Your task to perform on an android device: turn off notifications settings in the gmail app Image 0: 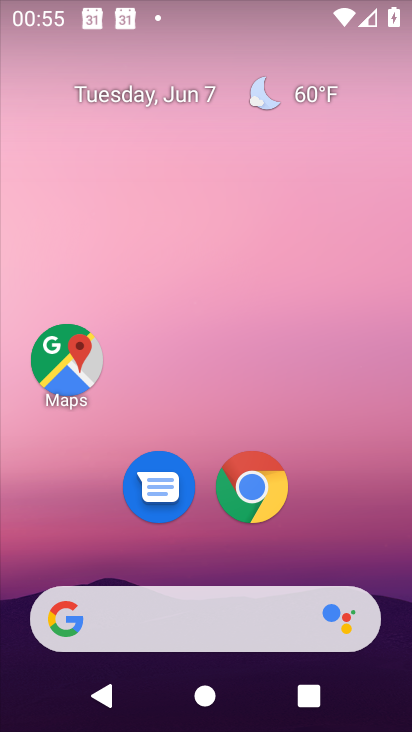
Step 0: drag from (392, 563) to (282, 124)
Your task to perform on an android device: turn off notifications settings in the gmail app Image 1: 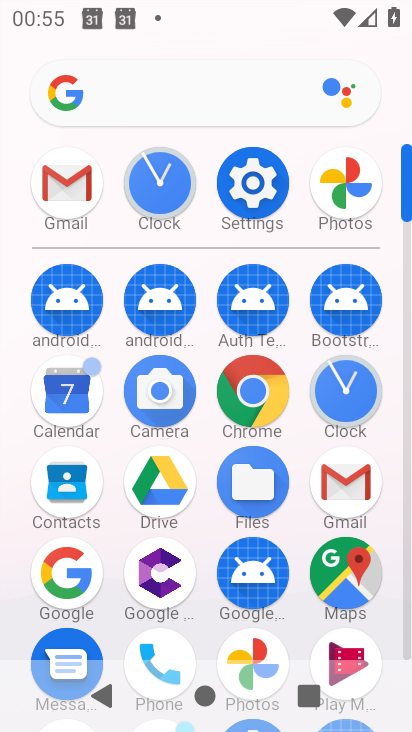
Step 1: click (59, 171)
Your task to perform on an android device: turn off notifications settings in the gmail app Image 2: 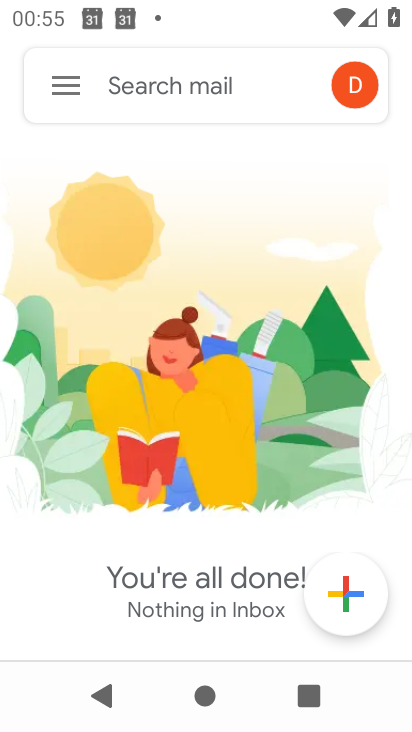
Step 2: click (66, 83)
Your task to perform on an android device: turn off notifications settings in the gmail app Image 3: 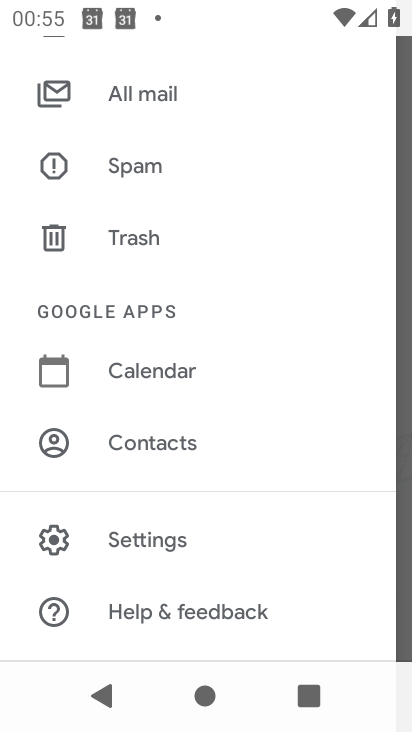
Step 3: click (198, 551)
Your task to perform on an android device: turn off notifications settings in the gmail app Image 4: 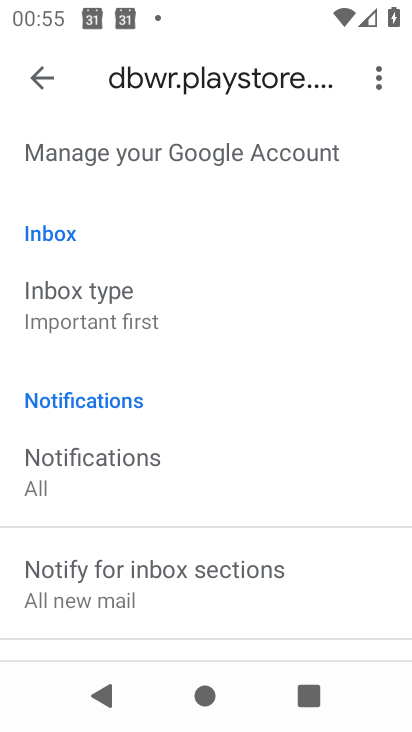
Step 4: drag from (226, 610) to (170, 161)
Your task to perform on an android device: turn off notifications settings in the gmail app Image 5: 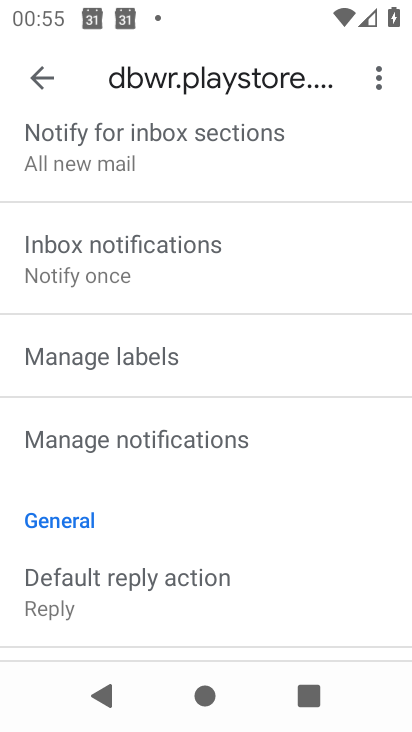
Step 5: drag from (218, 509) to (211, 442)
Your task to perform on an android device: turn off notifications settings in the gmail app Image 6: 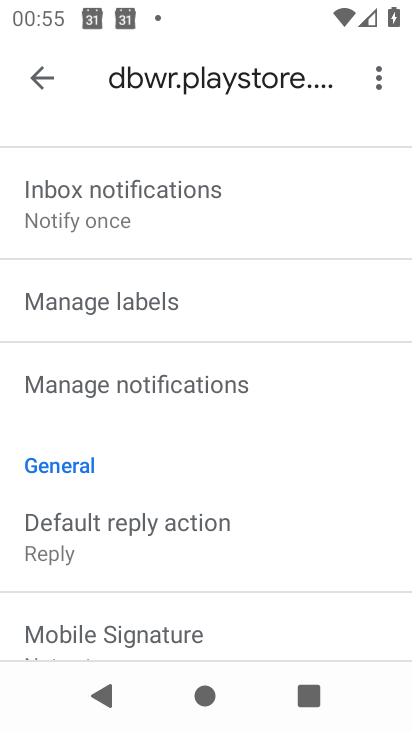
Step 6: click (201, 392)
Your task to perform on an android device: turn off notifications settings in the gmail app Image 7: 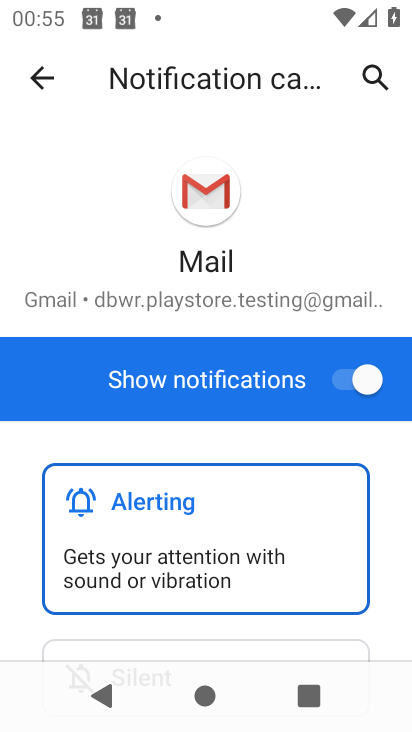
Step 7: task complete